Your task to perform on an android device: toggle pop-ups in chrome Image 0: 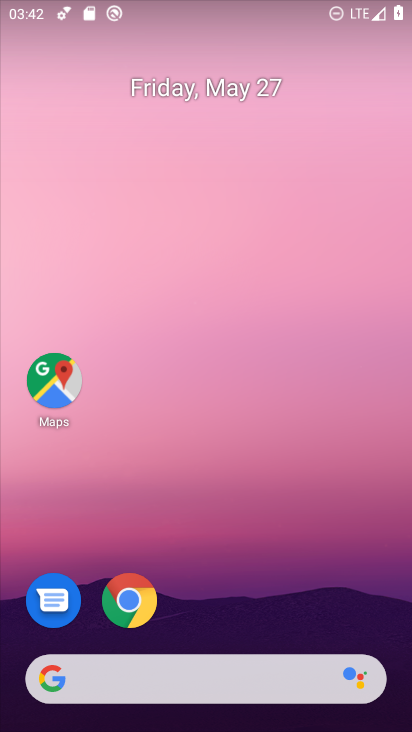
Step 0: click (134, 603)
Your task to perform on an android device: toggle pop-ups in chrome Image 1: 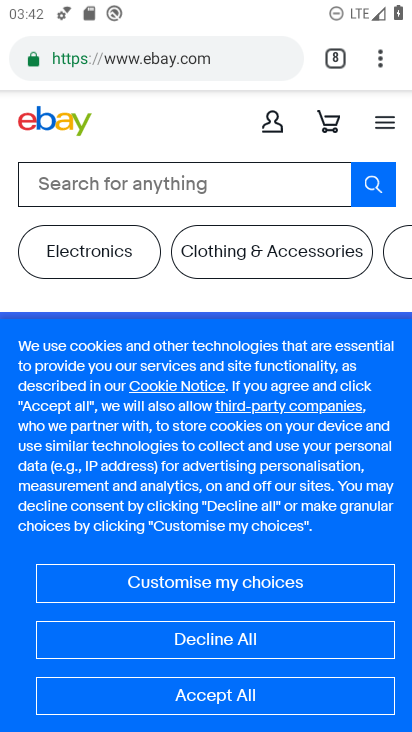
Step 1: click (380, 58)
Your task to perform on an android device: toggle pop-ups in chrome Image 2: 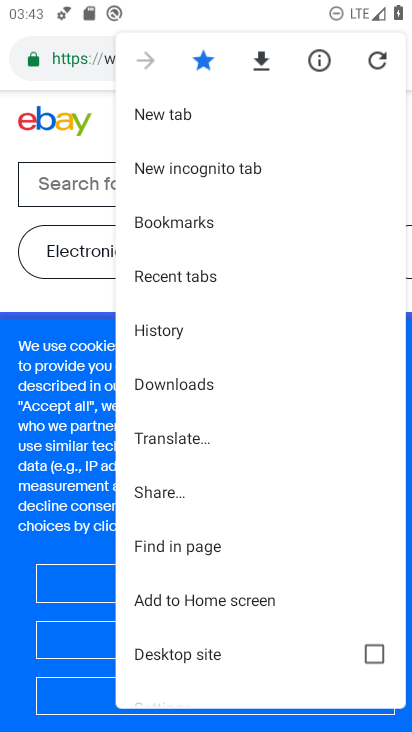
Step 2: drag from (232, 674) to (220, 226)
Your task to perform on an android device: toggle pop-ups in chrome Image 3: 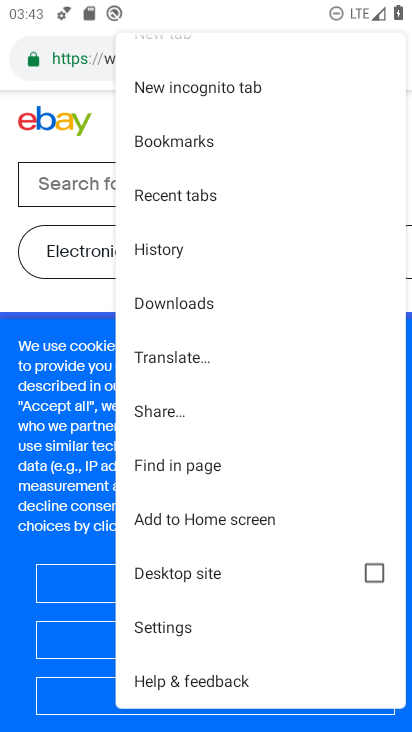
Step 3: click (166, 621)
Your task to perform on an android device: toggle pop-ups in chrome Image 4: 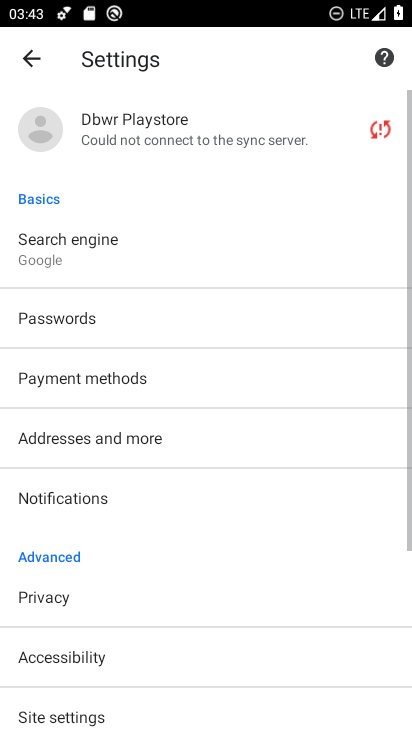
Step 4: drag from (163, 672) to (157, 355)
Your task to perform on an android device: toggle pop-ups in chrome Image 5: 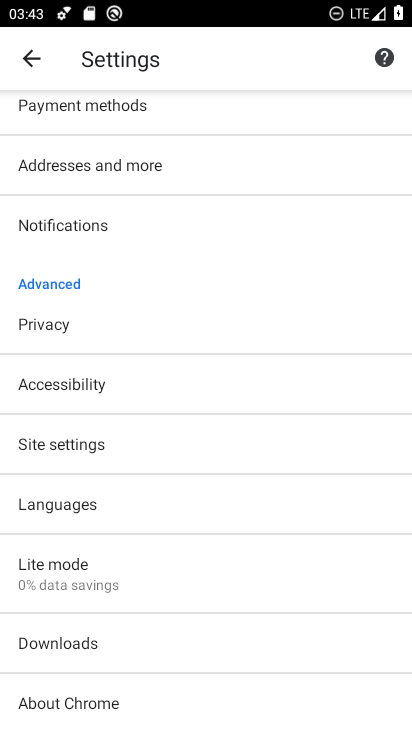
Step 5: click (79, 443)
Your task to perform on an android device: toggle pop-ups in chrome Image 6: 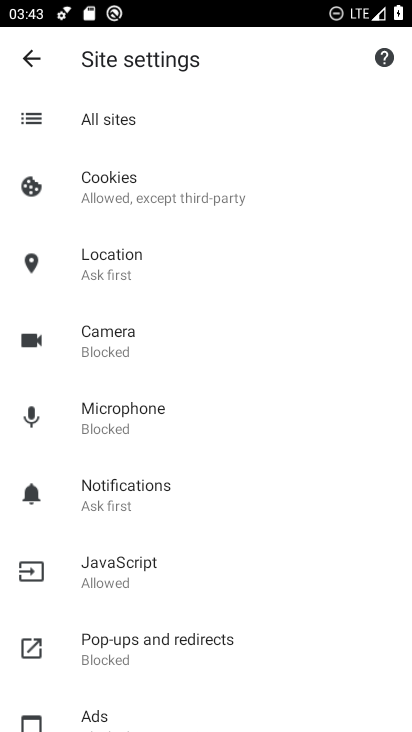
Step 6: click (105, 630)
Your task to perform on an android device: toggle pop-ups in chrome Image 7: 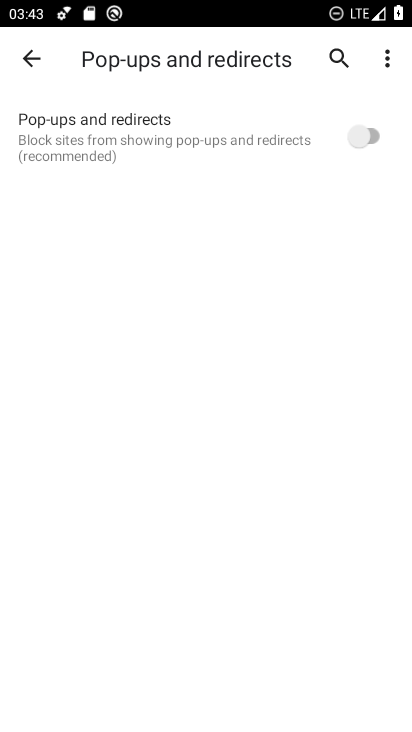
Step 7: click (378, 132)
Your task to perform on an android device: toggle pop-ups in chrome Image 8: 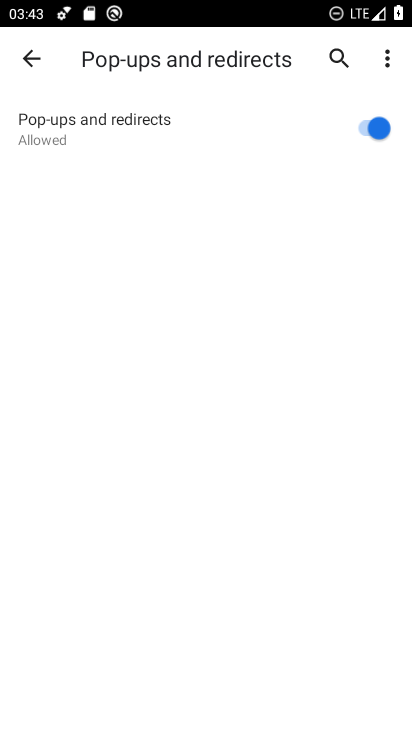
Step 8: task complete